Your task to perform on an android device: see sites visited before in the chrome app Image 0: 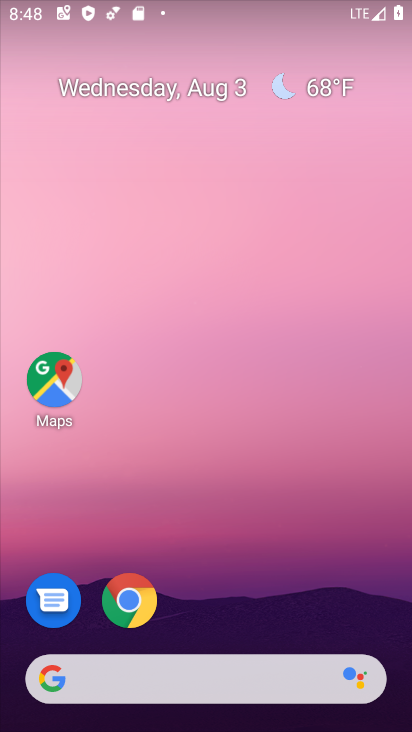
Step 0: click (130, 600)
Your task to perform on an android device: see sites visited before in the chrome app Image 1: 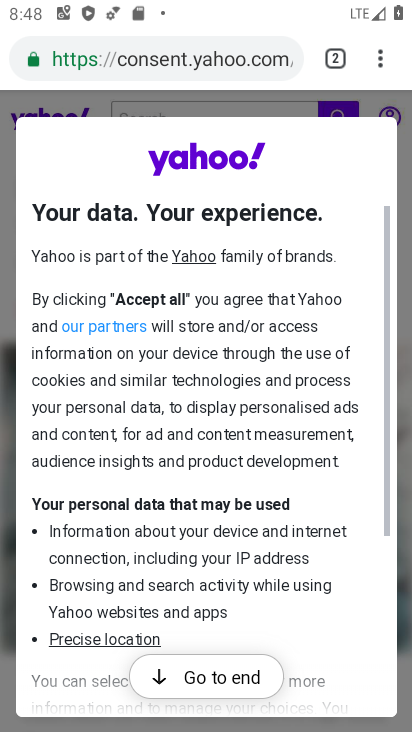
Step 1: click (385, 46)
Your task to perform on an android device: see sites visited before in the chrome app Image 2: 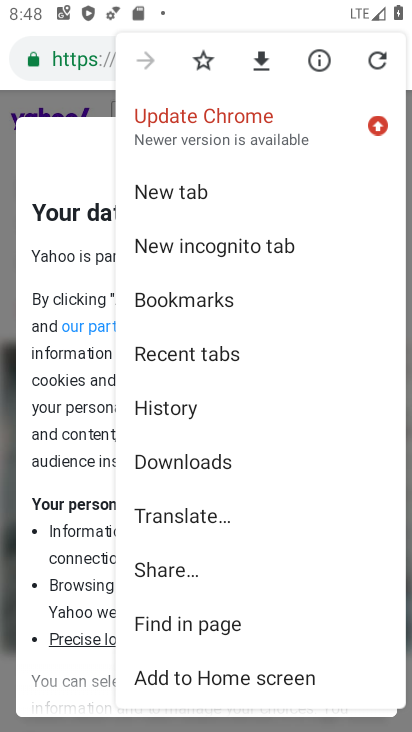
Step 2: drag from (207, 621) to (205, 461)
Your task to perform on an android device: see sites visited before in the chrome app Image 3: 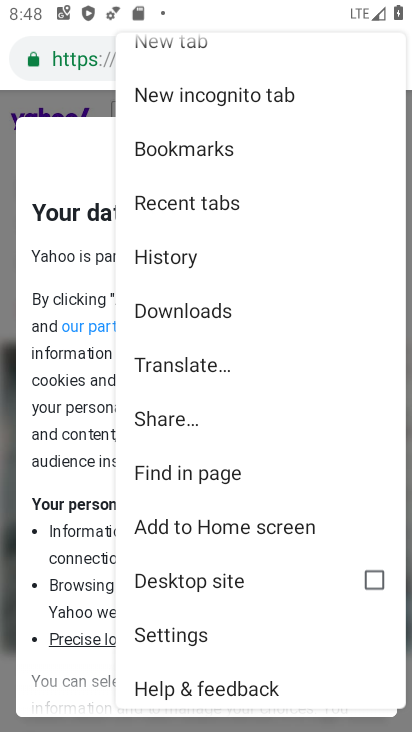
Step 3: click (180, 264)
Your task to perform on an android device: see sites visited before in the chrome app Image 4: 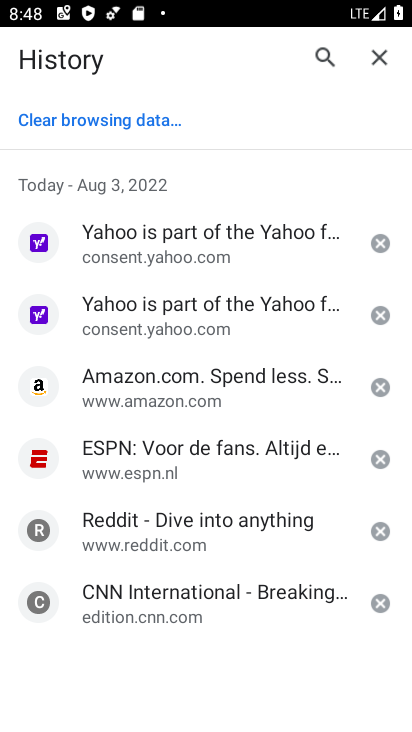
Step 4: task complete